Your task to perform on an android device: Go to Google Image 0: 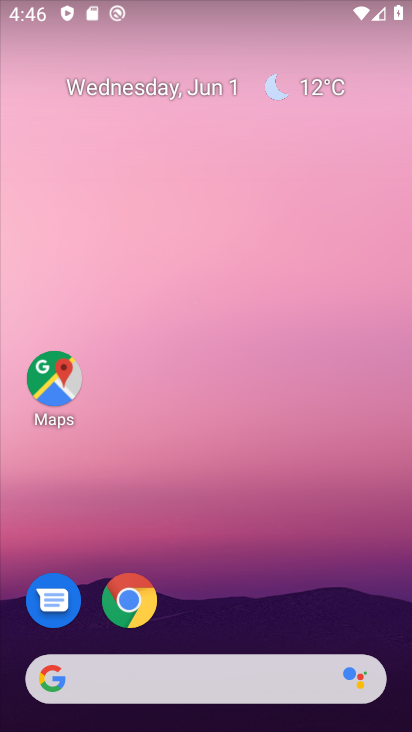
Step 0: drag from (281, 615) to (233, 109)
Your task to perform on an android device: Go to Google Image 1: 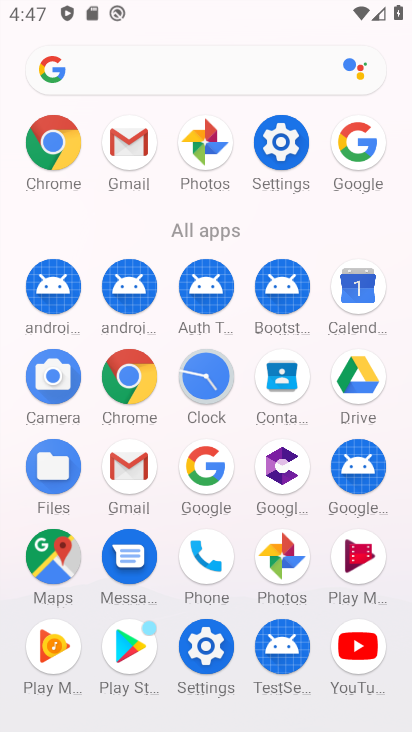
Step 1: click (354, 142)
Your task to perform on an android device: Go to Google Image 2: 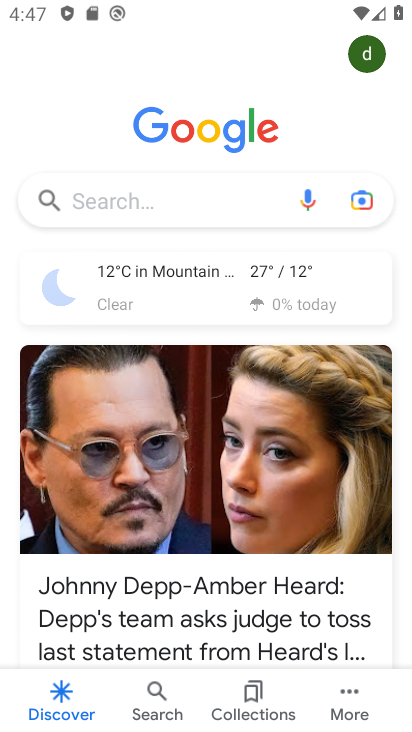
Step 2: task complete